Your task to perform on an android device: Go to privacy settings Image 0: 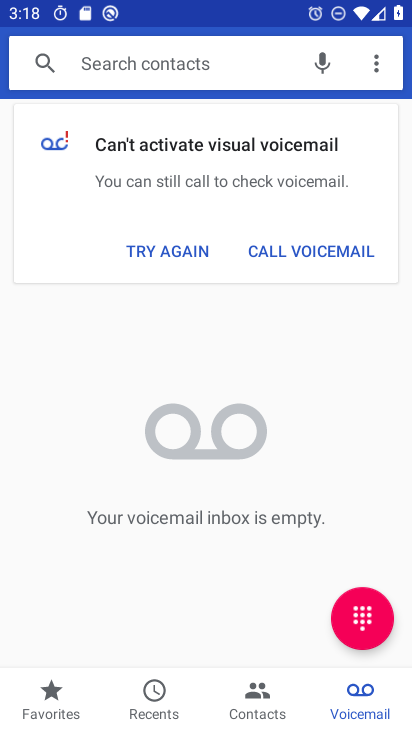
Step 0: press home button
Your task to perform on an android device: Go to privacy settings Image 1: 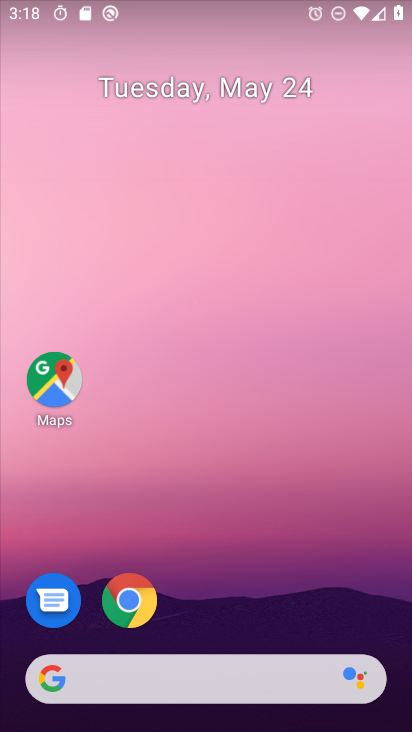
Step 1: drag from (271, 554) to (199, 85)
Your task to perform on an android device: Go to privacy settings Image 2: 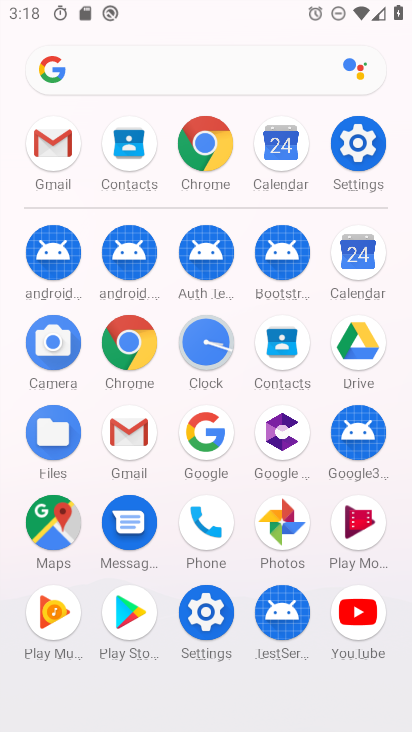
Step 2: click (342, 132)
Your task to perform on an android device: Go to privacy settings Image 3: 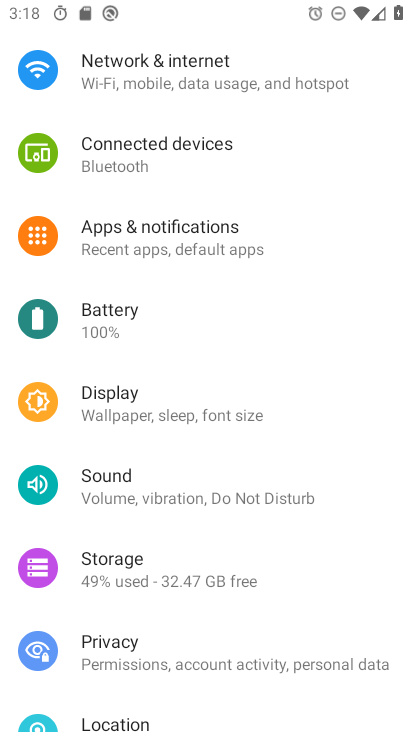
Step 3: drag from (152, 505) to (238, 189)
Your task to perform on an android device: Go to privacy settings Image 4: 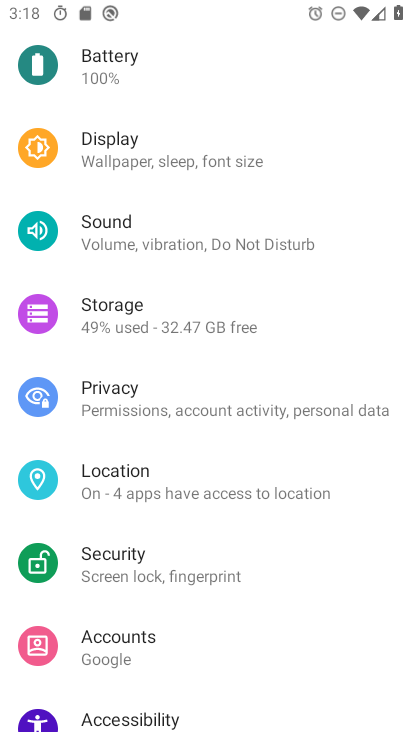
Step 4: click (170, 401)
Your task to perform on an android device: Go to privacy settings Image 5: 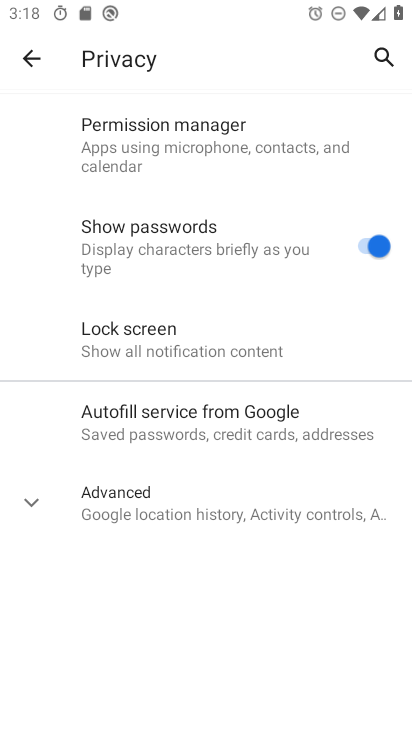
Step 5: task complete